Your task to perform on an android device: change your default location settings in chrome Image 0: 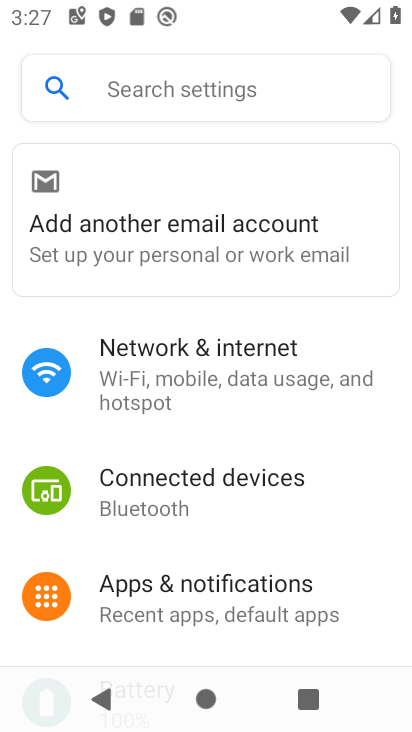
Step 0: press home button
Your task to perform on an android device: change your default location settings in chrome Image 1: 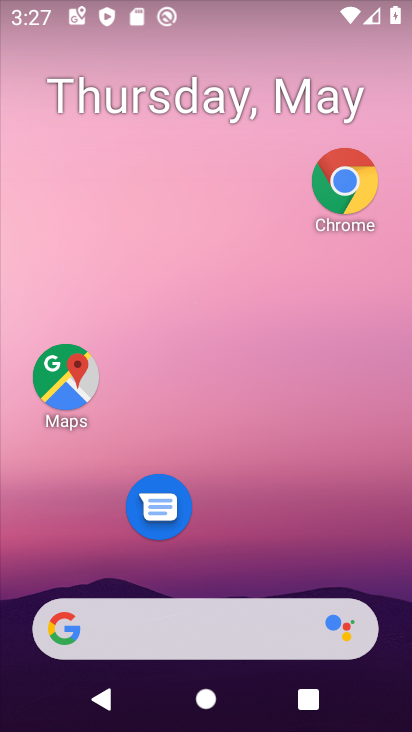
Step 1: drag from (262, 536) to (288, 107)
Your task to perform on an android device: change your default location settings in chrome Image 2: 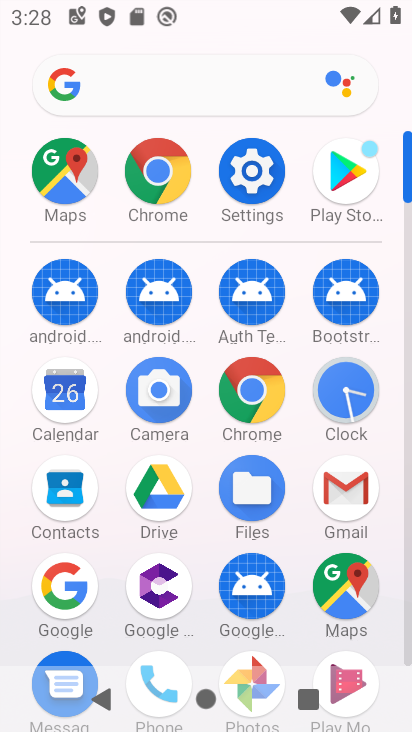
Step 2: click (248, 396)
Your task to perform on an android device: change your default location settings in chrome Image 3: 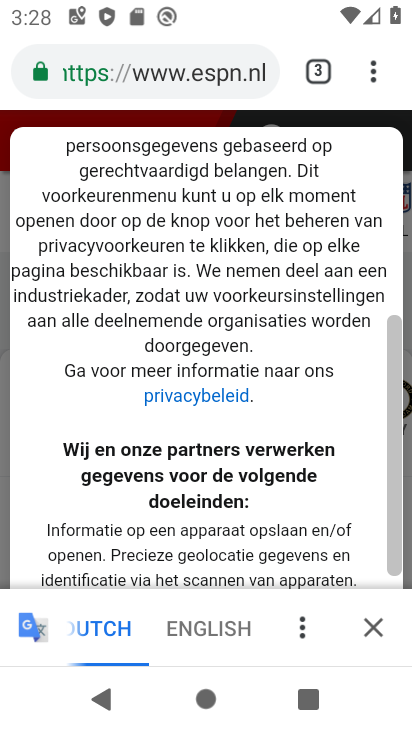
Step 3: drag from (368, 71) to (170, 494)
Your task to perform on an android device: change your default location settings in chrome Image 4: 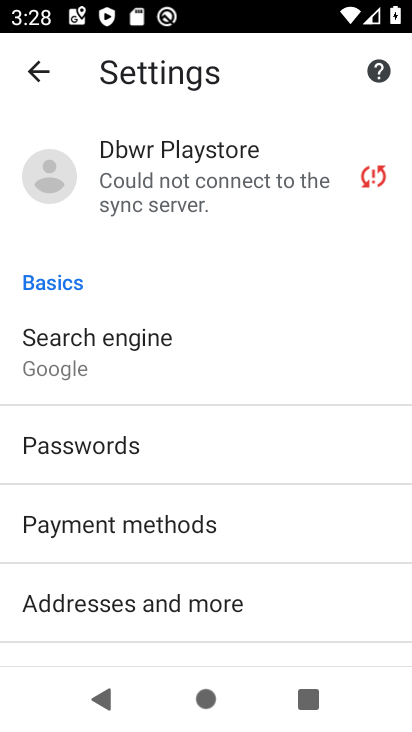
Step 4: drag from (258, 539) to (277, 262)
Your task to perform on an android device: change your default location settings in chrome Image 5: 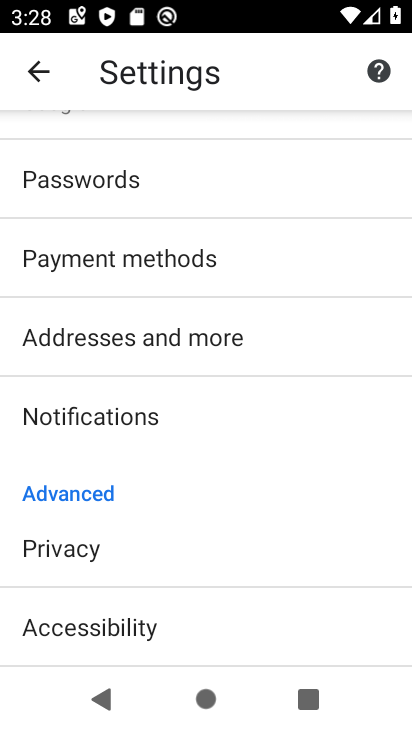
Step 5: drag from (210, 580) to (230, 205)
Your task to perform on an android device: change your default location settings in chrome Image 6: 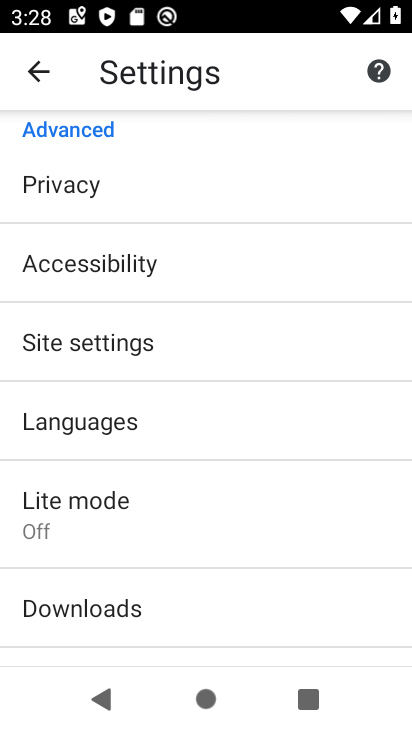
Step 6: click (109, 341)
Your task to perform on an android device: change your default location settings in chrome Image 7: 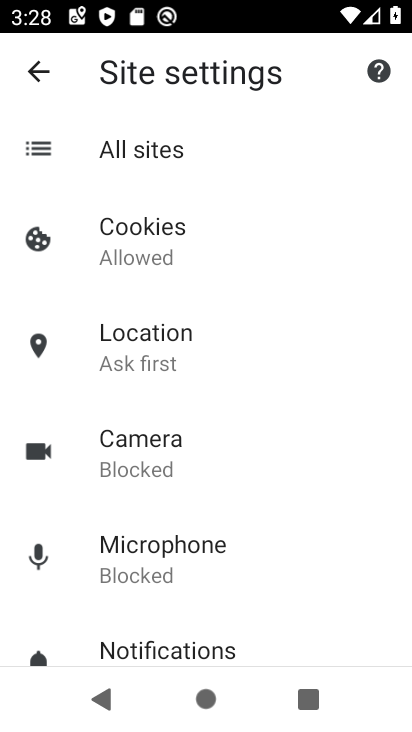
Step 7: click (149, 345)
Your task to perform on an android device: change your default location settings in chrome Image 8: 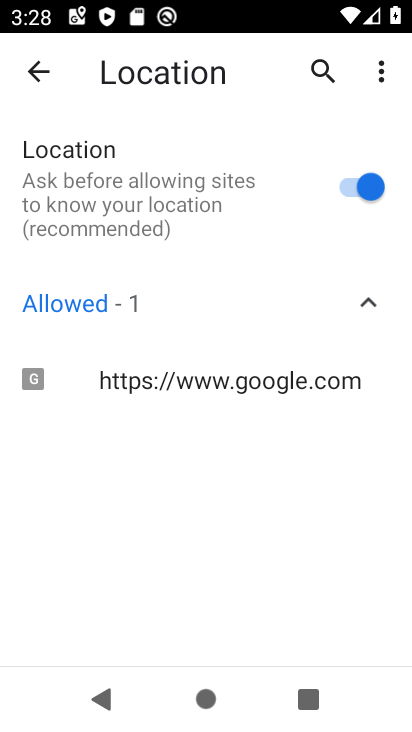
Step 8: click (350, 193)
Your task to perform on an android device: change your default location settings in chrome Image 9: 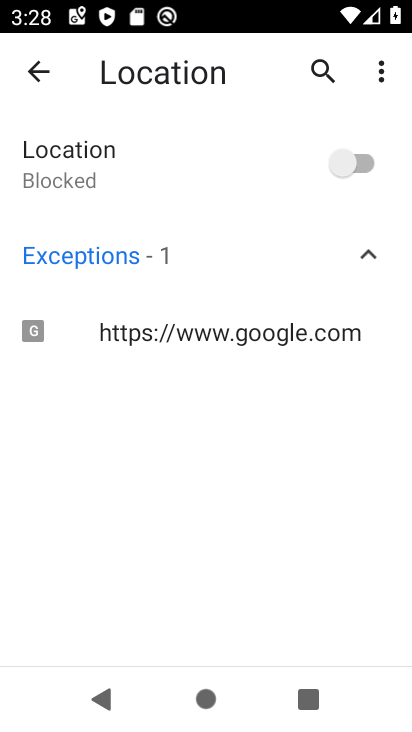
Step 9: task complete